Your task to perform on an android device: What is the news today? Image 0: 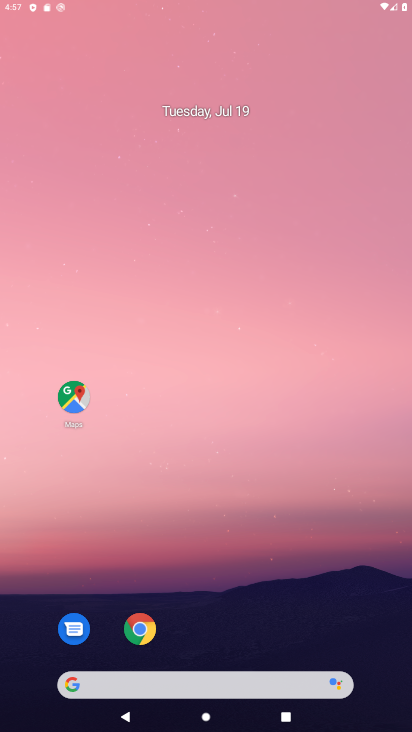
Step 0: press home button
Your task to perform on an android device: What is the news today? Image 1: 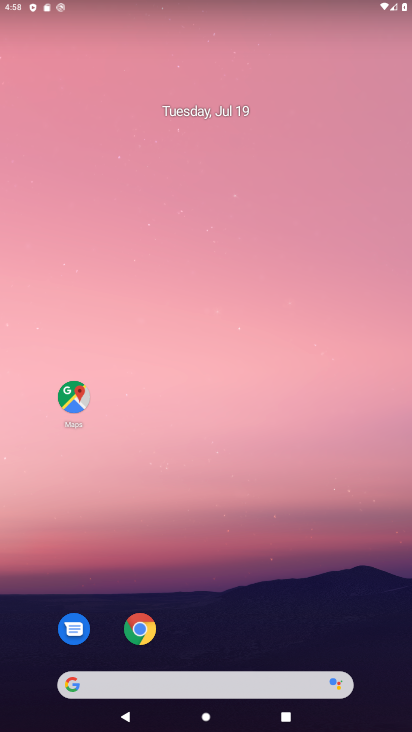
Step 1: click (65, 688)
Your task to perform on an android device: What is the news today? Image 2: 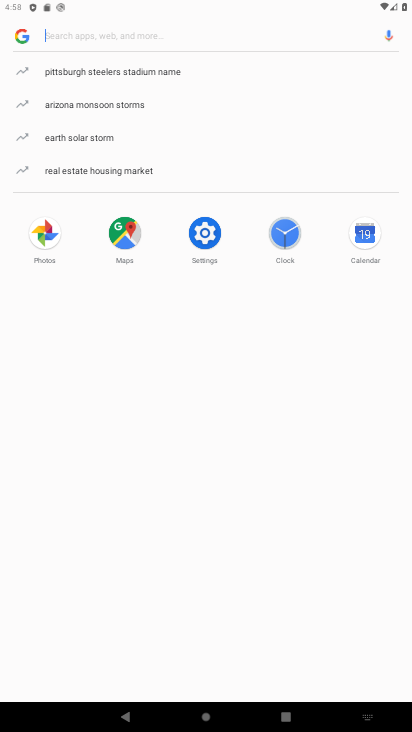
Step 2: type " news today?"
Your task to perform on an android device: What is the news today? Image 3: 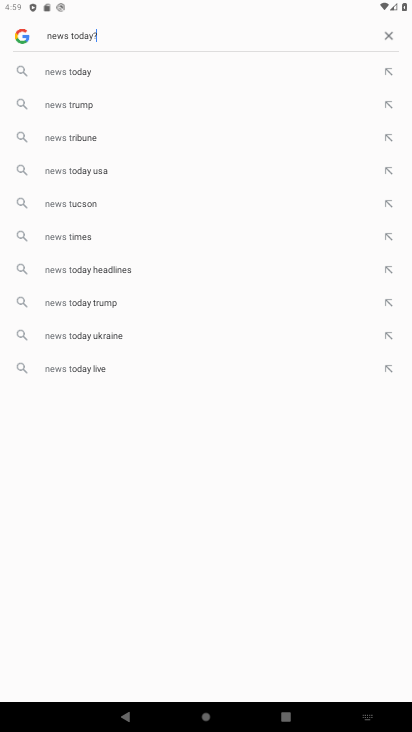
Step 3: press enter
Your task to perform on an android device: What is the news today? Image 4: 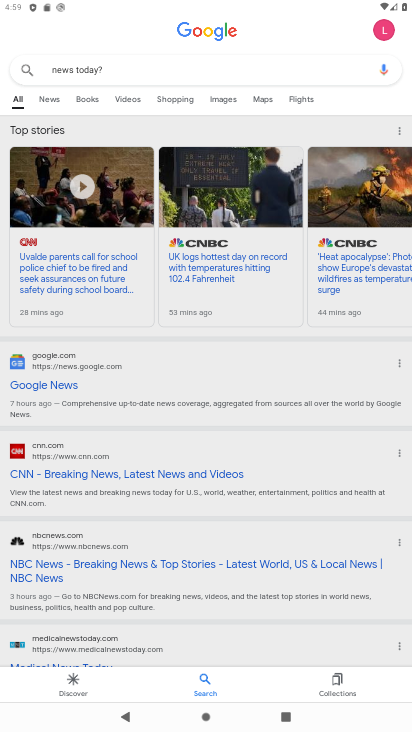
Step 4: task complete